Your task to perform on an android device: turn on sleep mode Image 0: 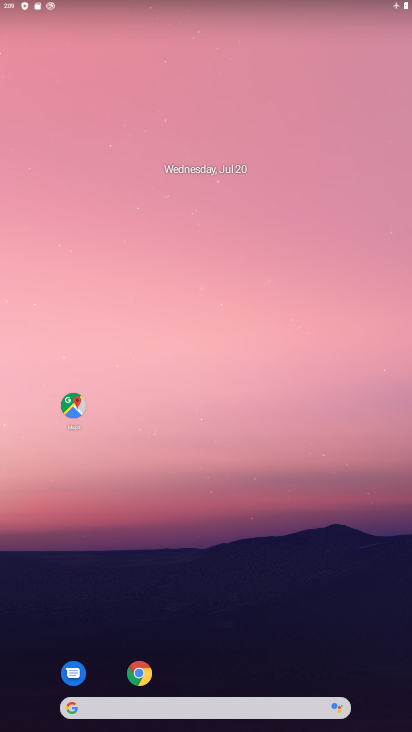
Step 0: drag from (298, 598) to (269, 128)
Your task to perform on an android device: turn on sleep mode Image 1: 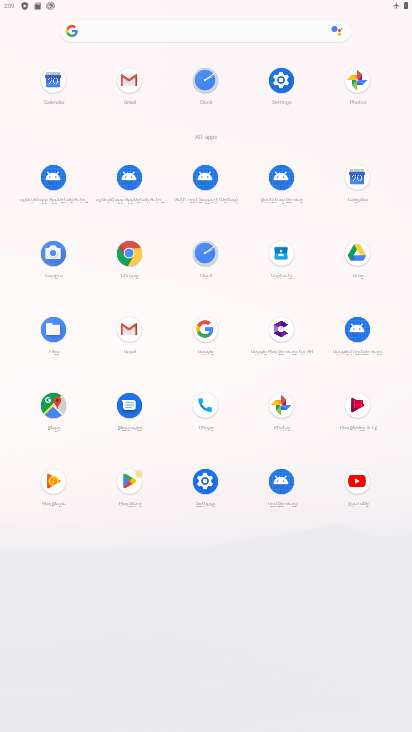
Step 1: drag from (226, 0) to (227, 422)
Your task to perform on an android device: turn on sleep mode Image 2: 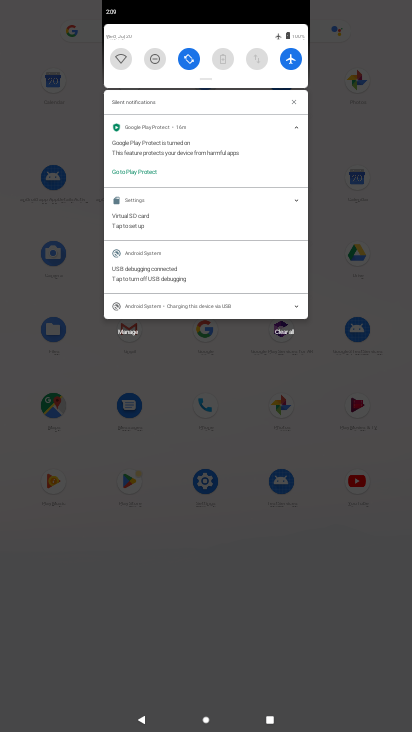
Step 2: drag from (213, 77) to (229, 335)
Your task to perform on an android device: turn on sleep mode Image 3: 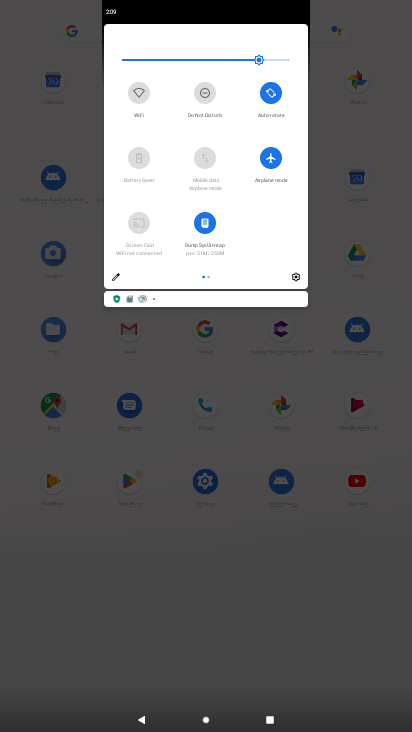
Step 3: click (115, 279)
Your task to perform on an android device: turn on sleep mode Image 4: 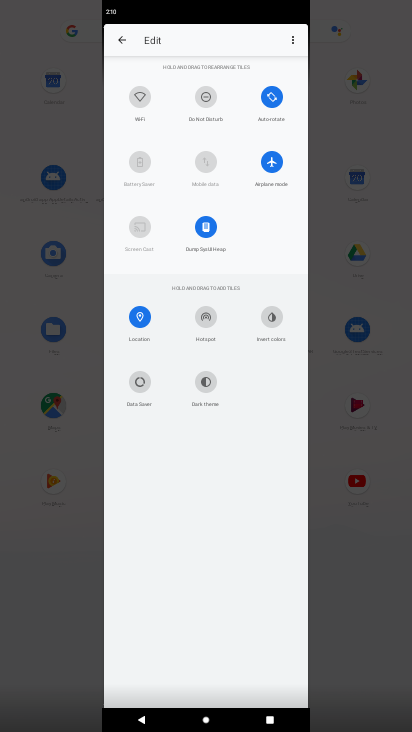
Step 4: task complete